Your task to perform on an android device: manage bookmarks in the chrome app Image 0: 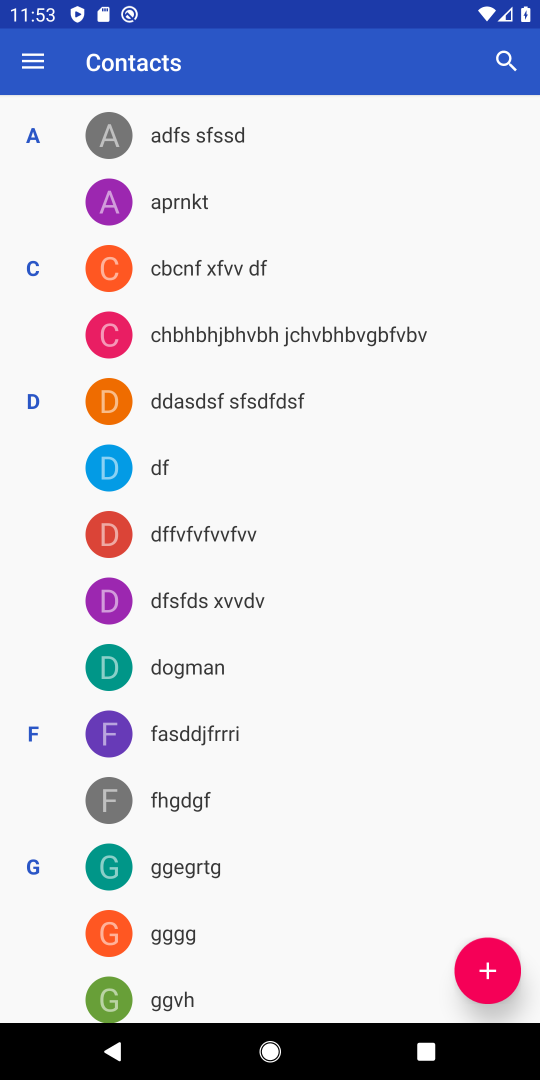
Step 0: press home button
Your task to perform on an android device: manage bookmarks in the chrome app Image 1: 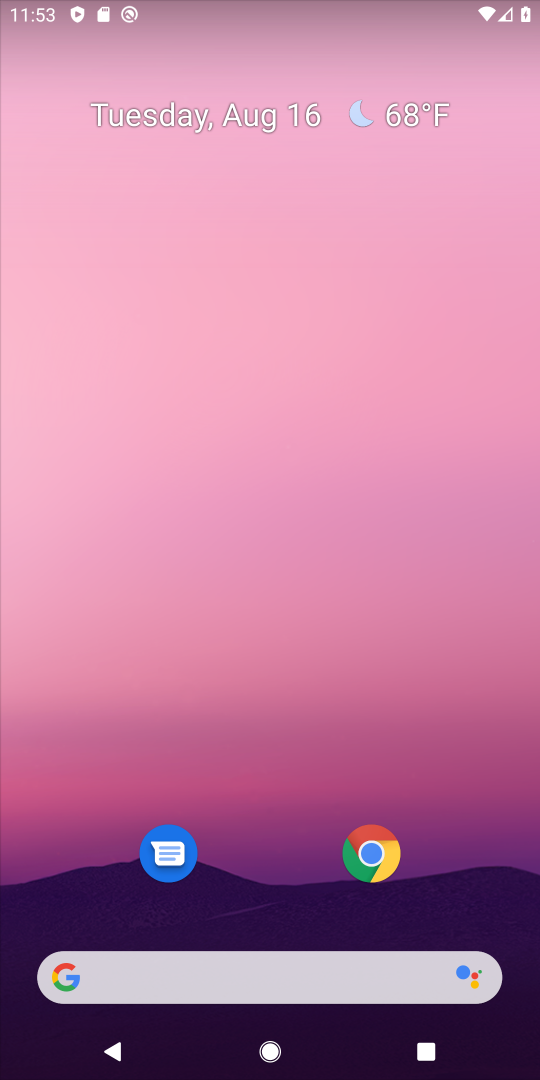
Step 1: click (349, 854)
Your task to perform on an android device: manage bookmarks in the chrome app Image 2: 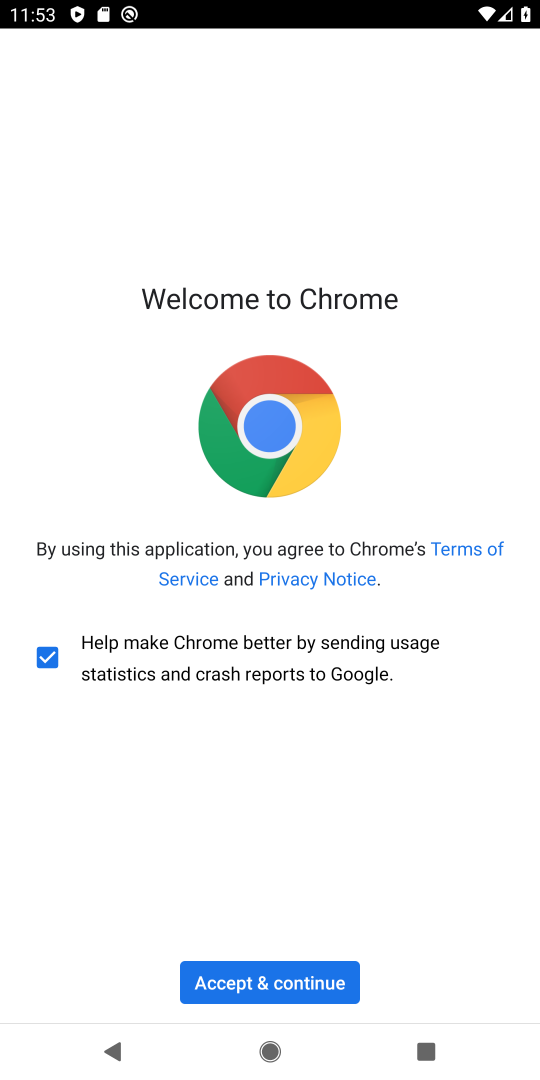
Step 2: click (231, 983)
Your task to perform on an android device: manage bookmarks in the chrome app Image 3: 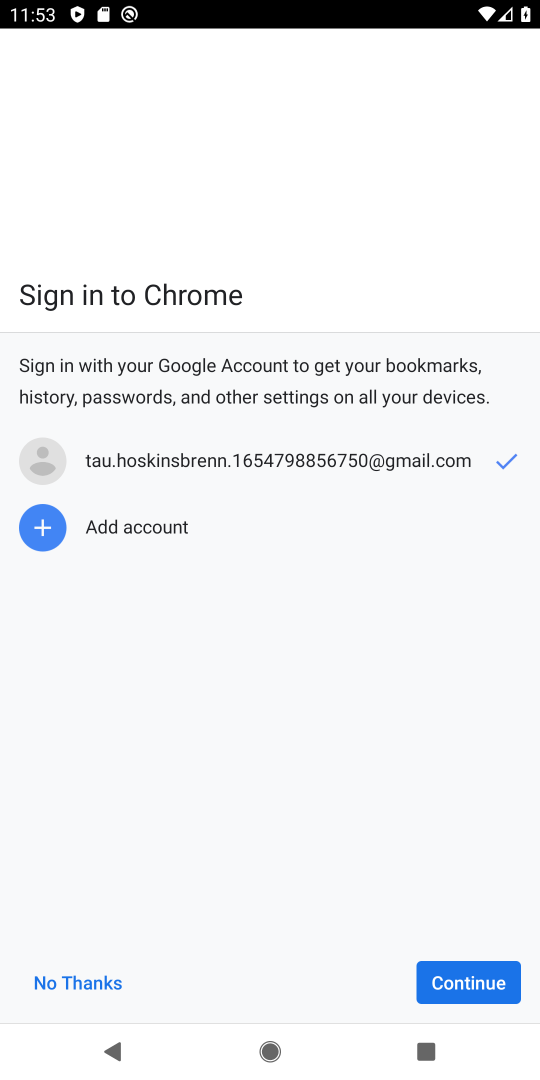
Step 3: click (486, 977)
Your task to perform on an android device: manage bookmarks in the chrome app Image 4: 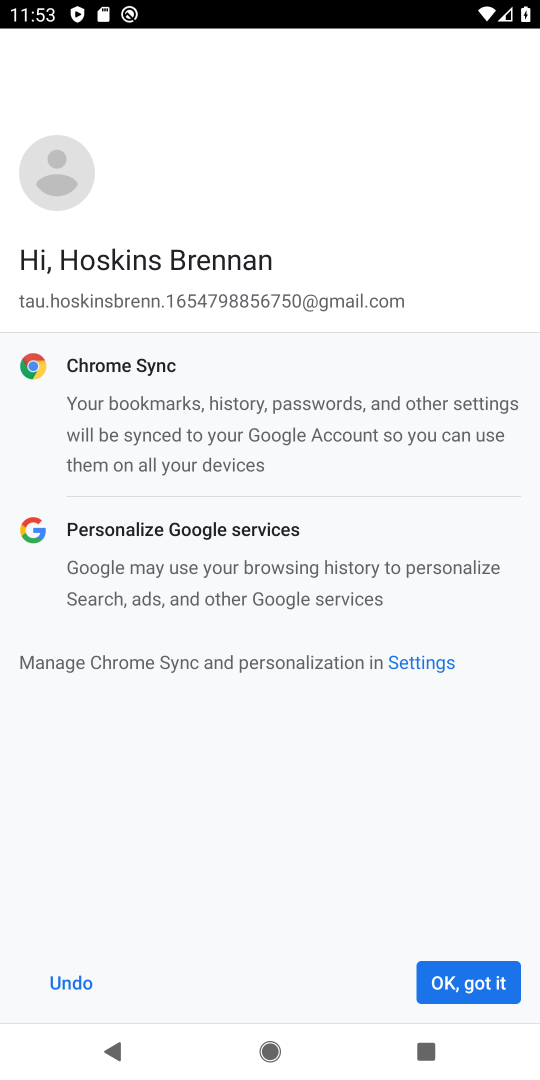
Step 4: click (486, 977)
Your task to perform on an android device: manage bookmarks in the chrome app Image 5: 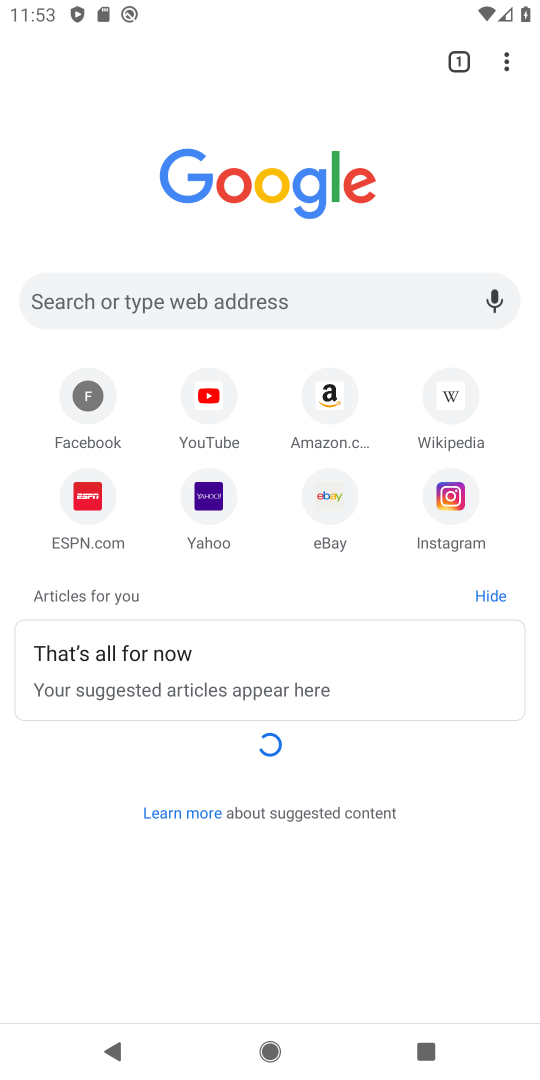
Step 5: click (505, 61)
Your task to perform on an android device: manage bookmarks in the chrome app Image 6: 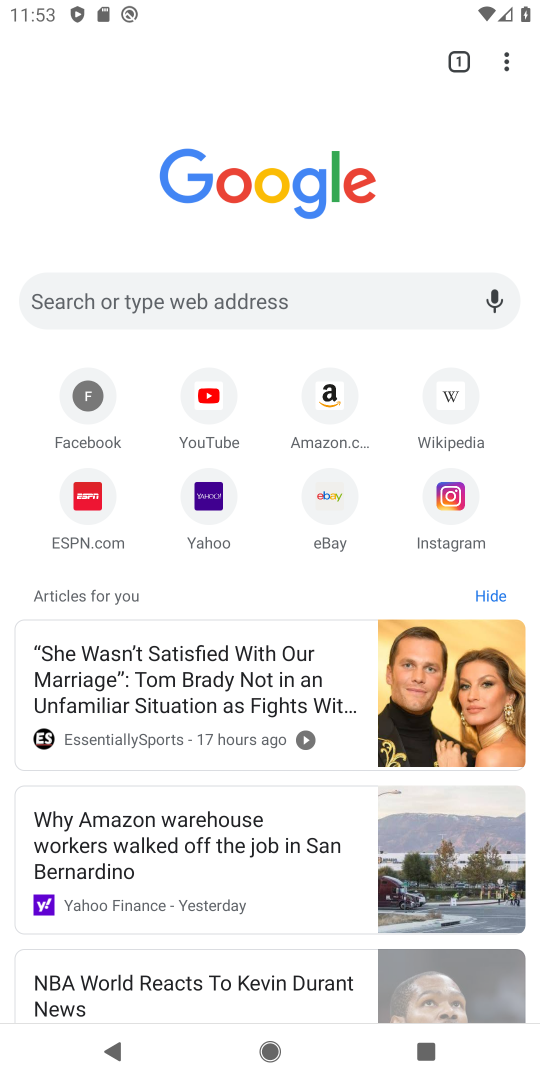
Step 6: click (507, 64)
Your task to perform on an android device: manage bookmarks in the chrome app Image 7: 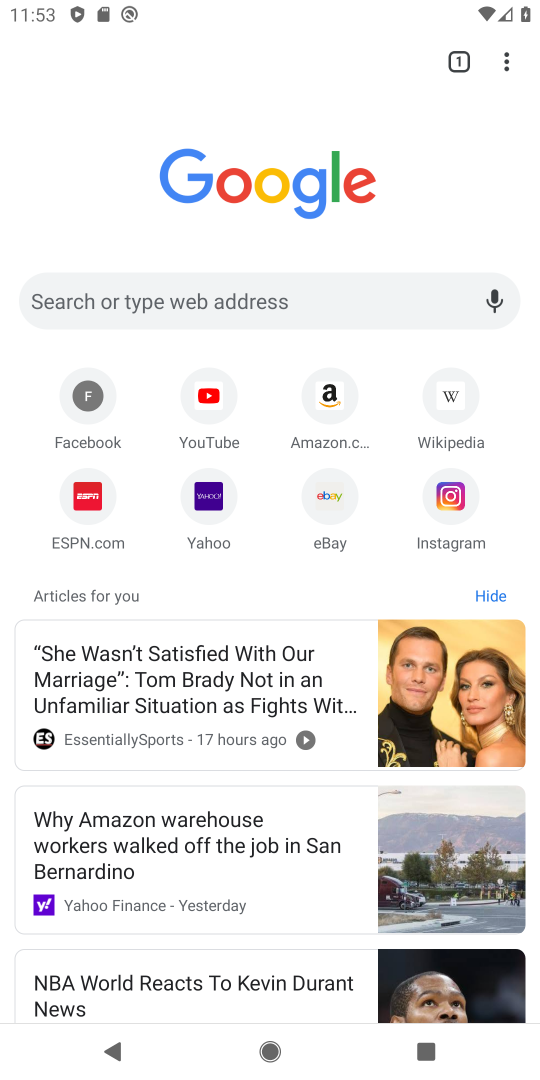
Step 7: click (499, 57)
Your task to perform on an android device: manage bookmarks in the chrome app Image 8: 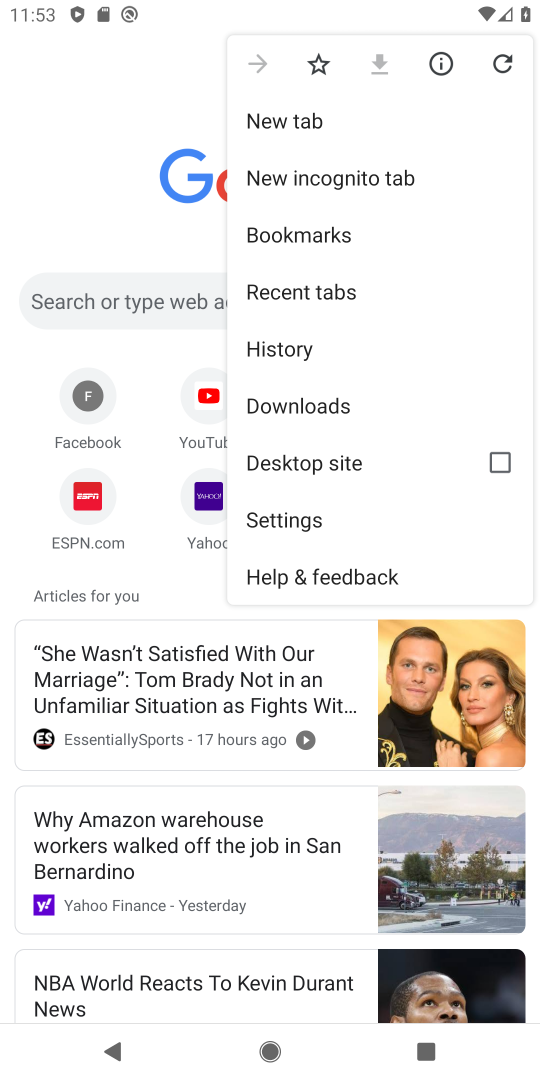
Step 8: click (307, 233)
Your task to perform on an android device: manage bookmarks in the chrome app Image 9: 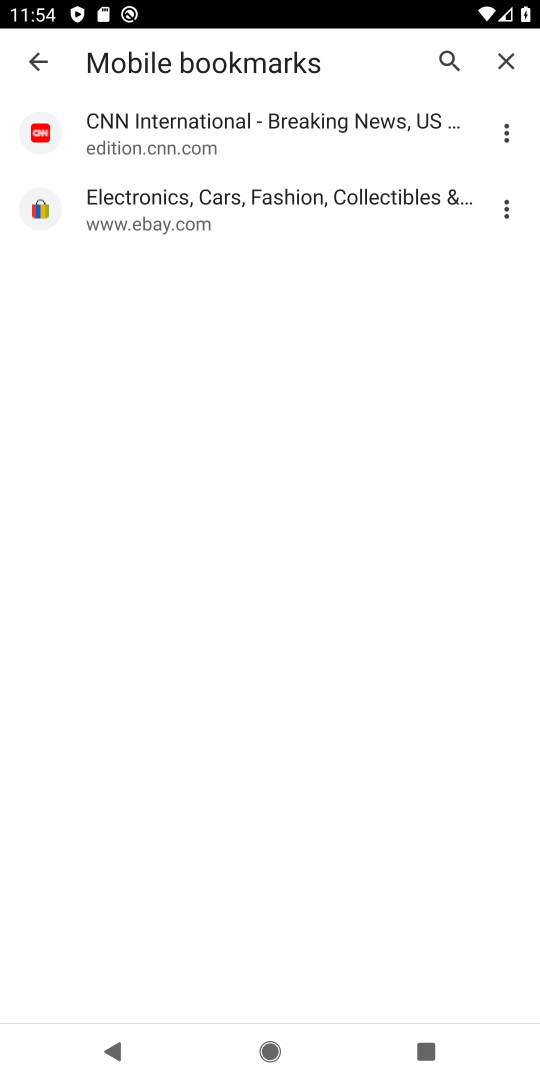
Step 9: task complete